Your task to perform on an android device: Open Google Maps Image 0: 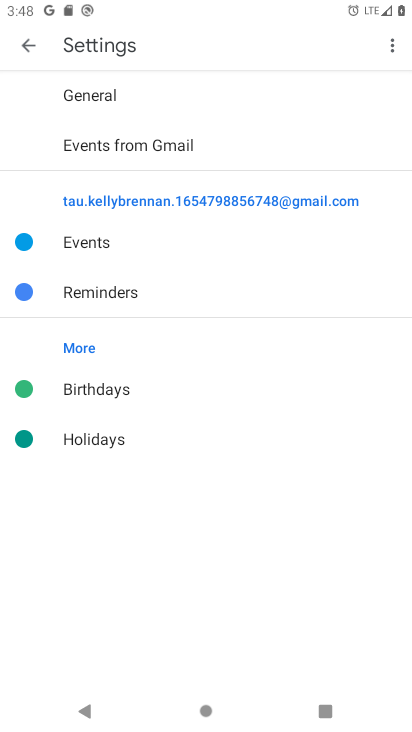
Step 0: press home button
Your task to perform on an android device: Open Google Maps Image 1: 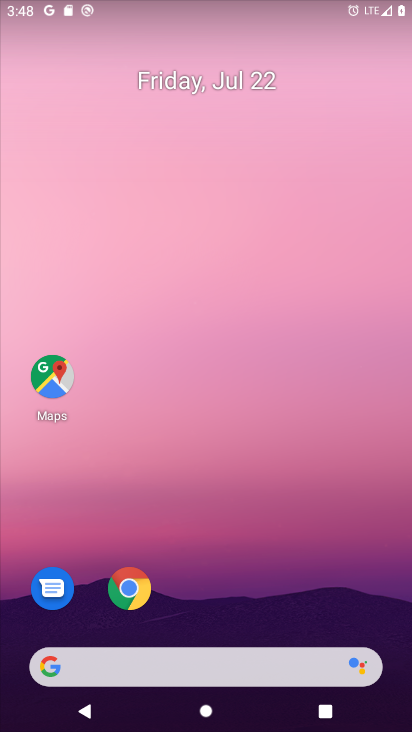
Step 1: drag from (129, 590) to (179, 78)
Your task to perform on an android device: Open Google Maps Image 2: 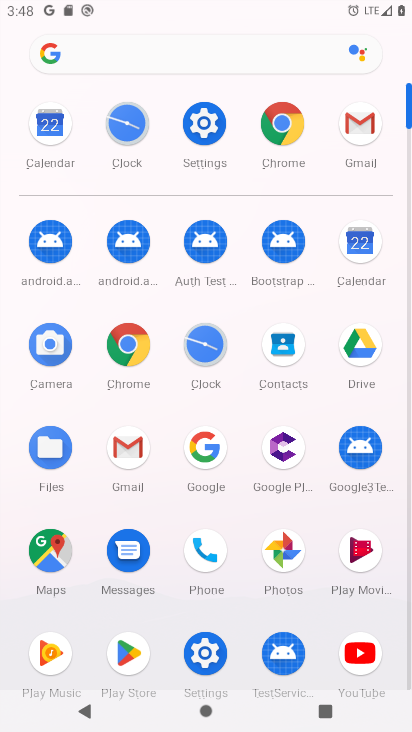
Step 2: click (51, 538)
Your task to perform on an android device: Open Google Maps Image 3: 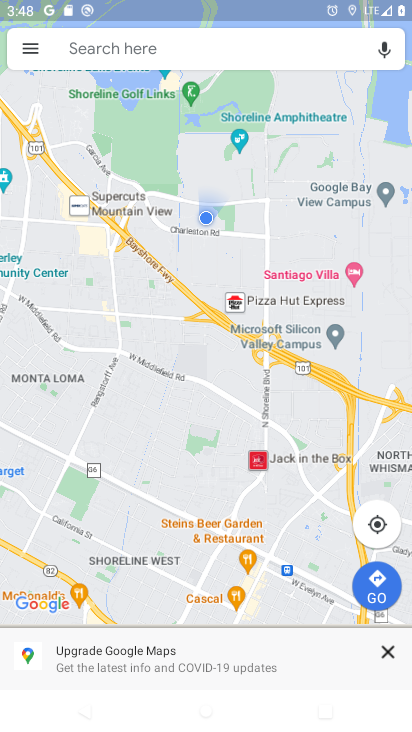
Step 3: task complete